Your task to perform on an android device: turn on the 12-hour format for clock Image 0: 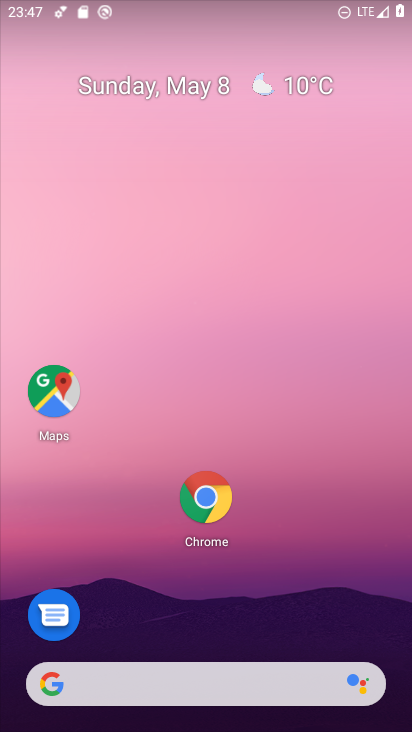
Step 0: drag from (347, 571) to (296, 110)
Your task to perform on an android device: turn on the 12-hour format for clock Image 1: 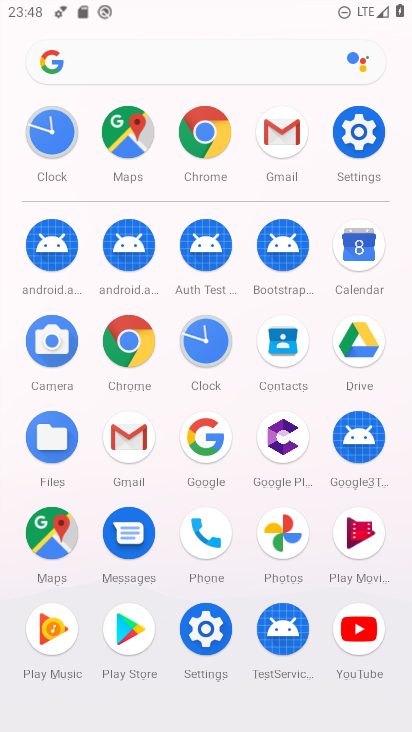
Step 1: click (218, 343)
Your task to perform on an android device: turn on the 12-hour format for clock Image 2: 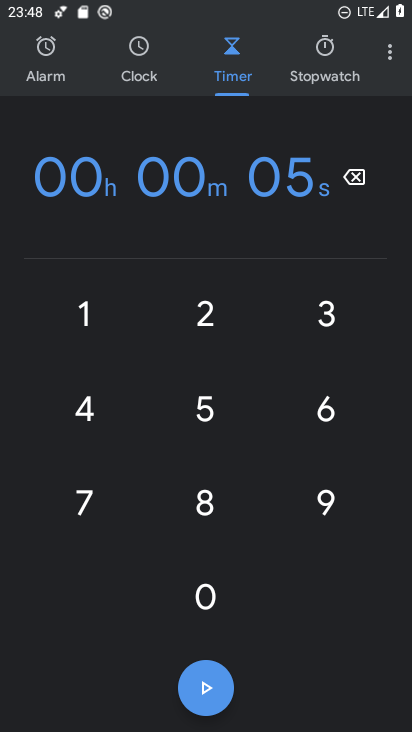
Step 2: click (393, 48)
Your task to perform on an android device: turn on the 12-hour format for clock Image 3: 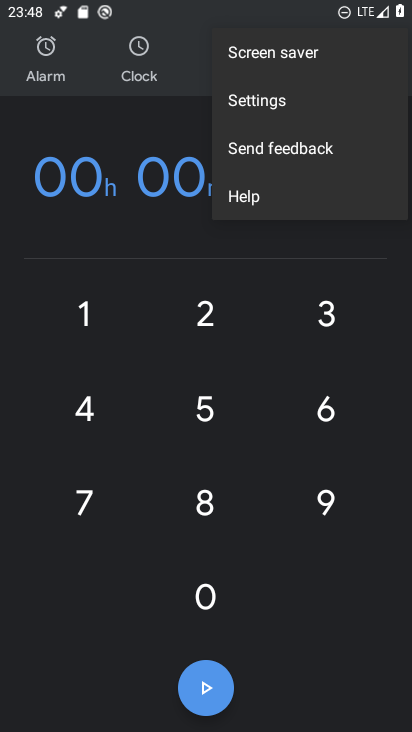
Step 3: click (255, 119)
Your task to perform on an android device: turn on the 12-hour format for clock Image 4: 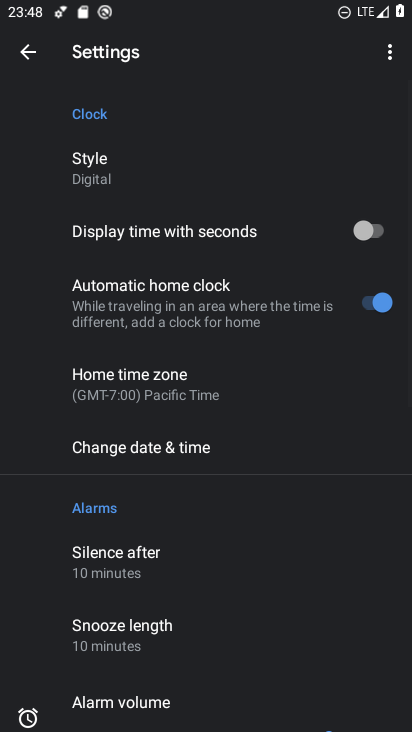
Step 4: drag from (217, 680) to (289, 227)
Your task to perform on an android device: turn on the 12-hour format for clock Image 5: 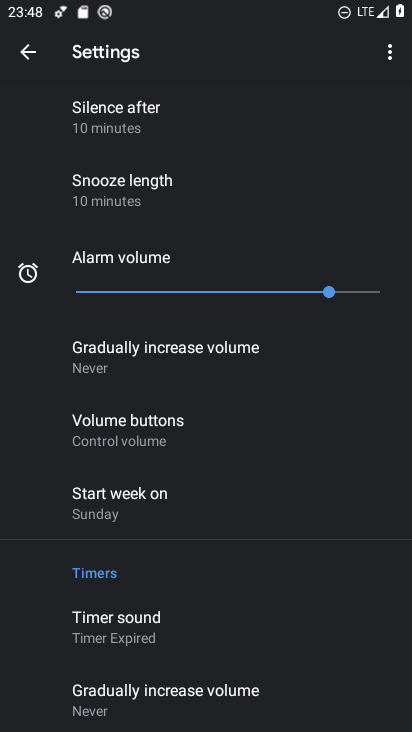
Step 5: drag from (330, 173) to (322, 580)
Your task to perform on an android device: turn on the 12-hour format for clock Image 6: 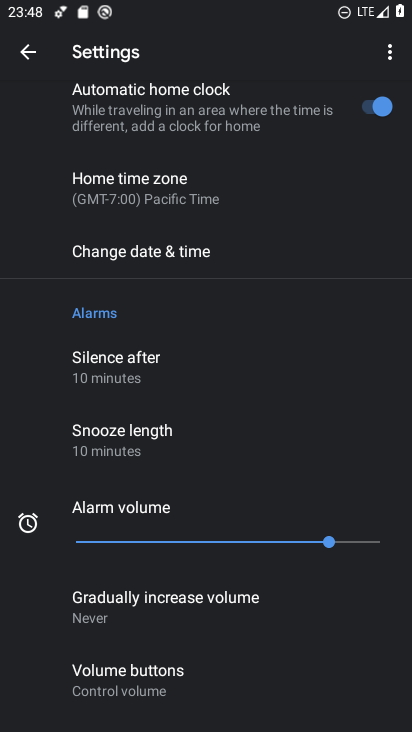
Step 6: click (186, 261)
Your task to perform on an android device: turn on the 12-hour format for clock Image 7: 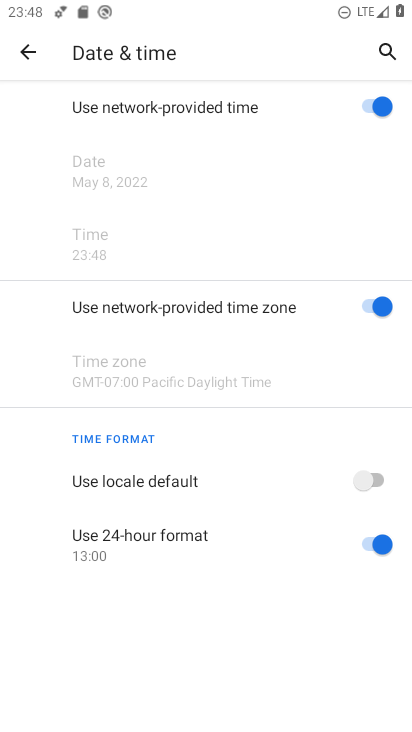
Step 7: click (366, 477)
Your task to perform on an android device: turn on the 12-hour format for clock Image 8: 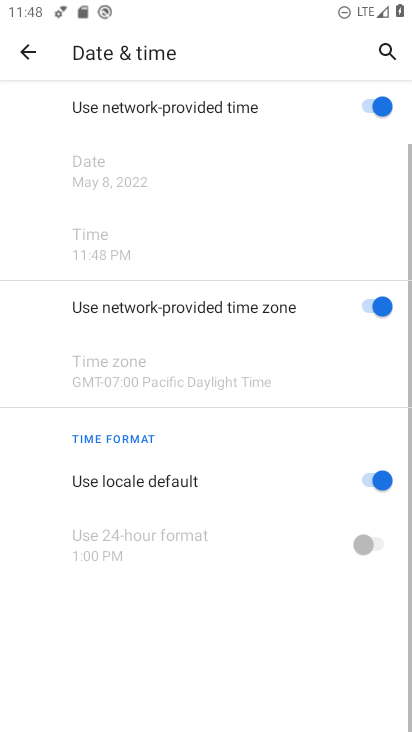
Step 8: task complete